Your task to perform on an android device: Go to Maps Image 0: 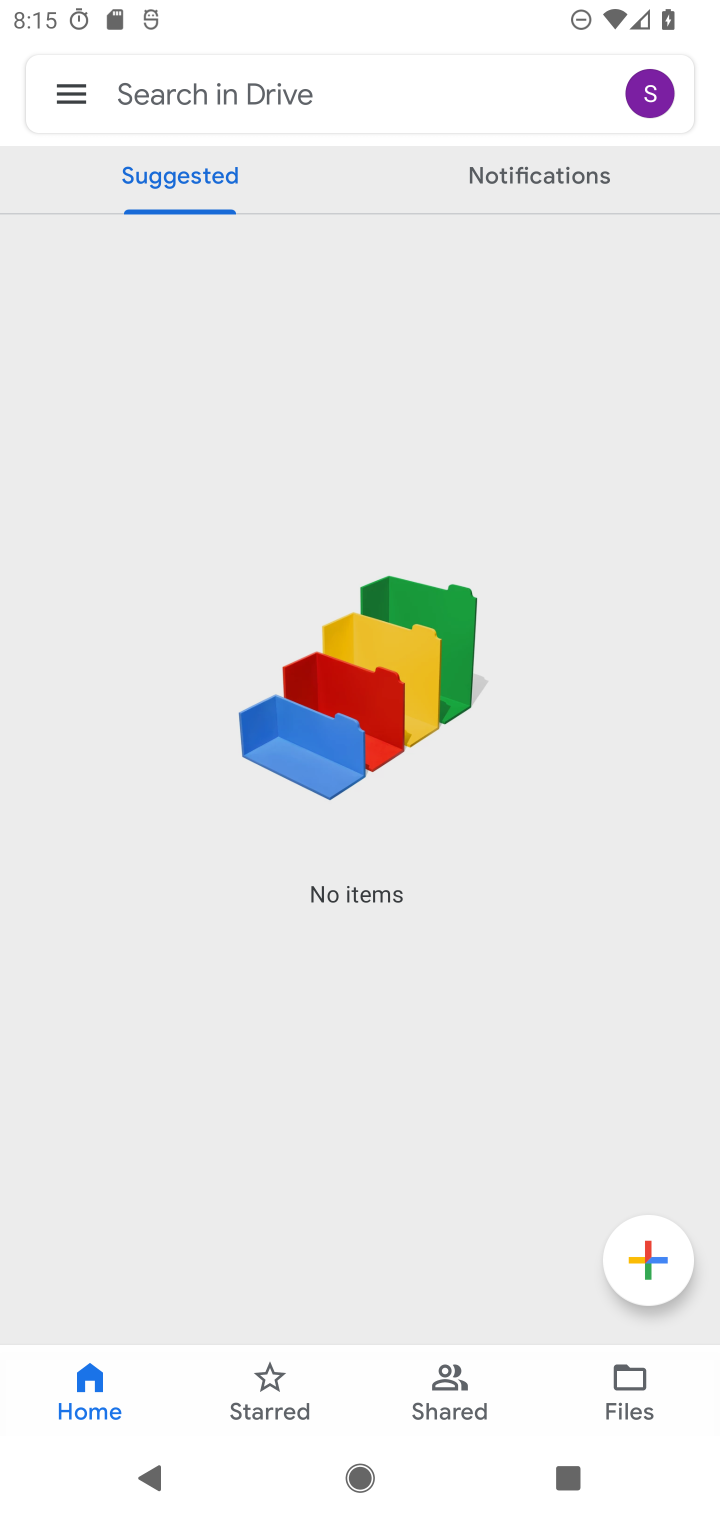
Step 0: press home button
Your task to perform on an android device: Go to Maps Image 1: 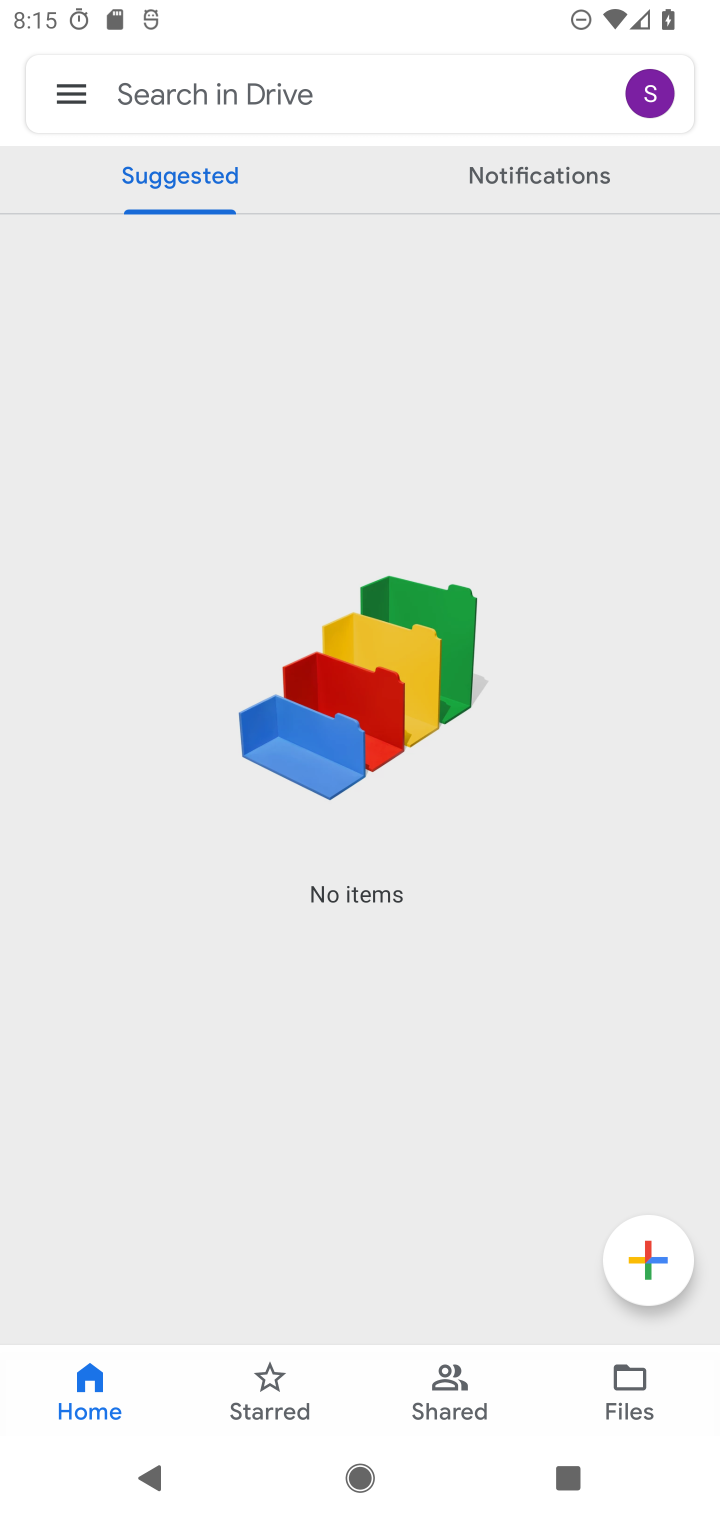
Step 1: press home button
Your task to perform on an android device: Go to Maps Image 2: 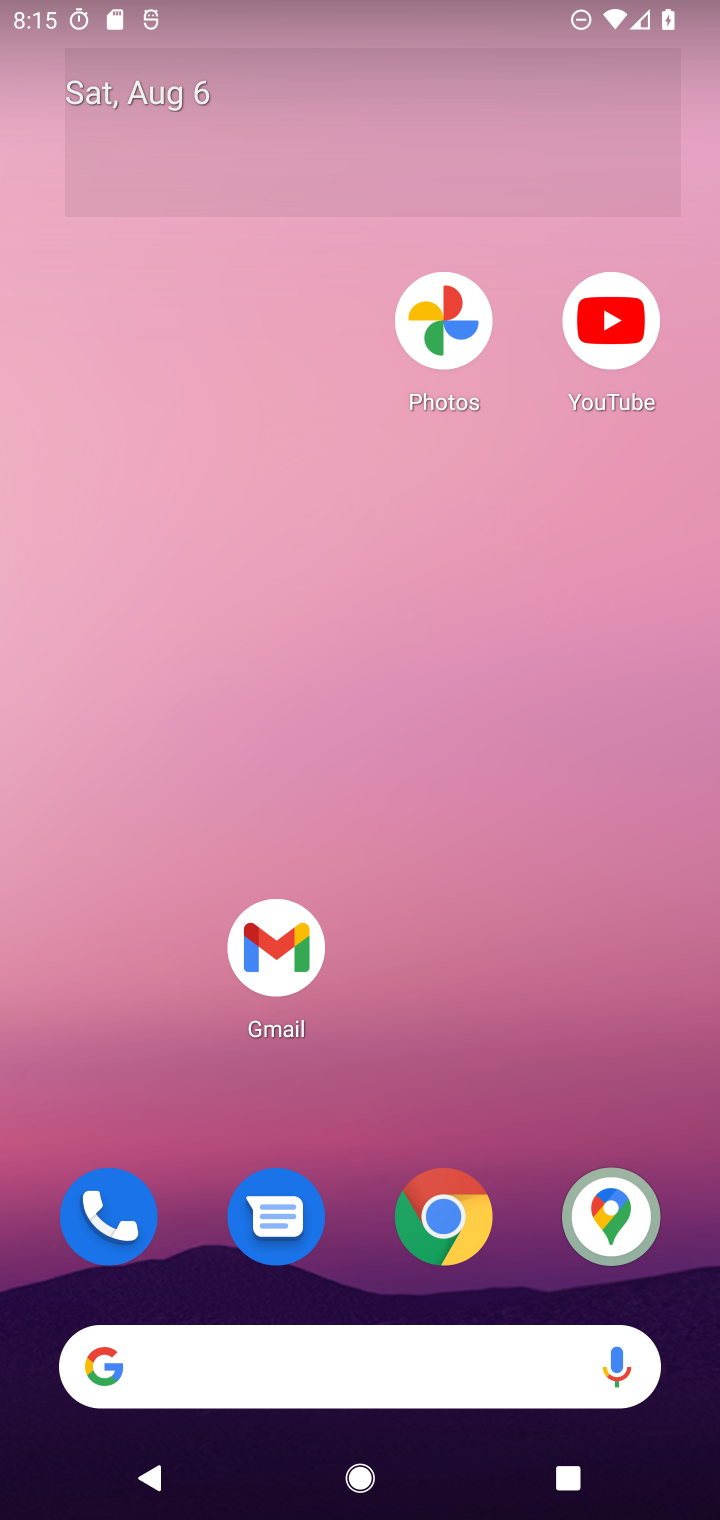
Step 2: drag from (549, 1061) to (465, 3)
Your task to perform on an android device: Go to Maps Image 3: 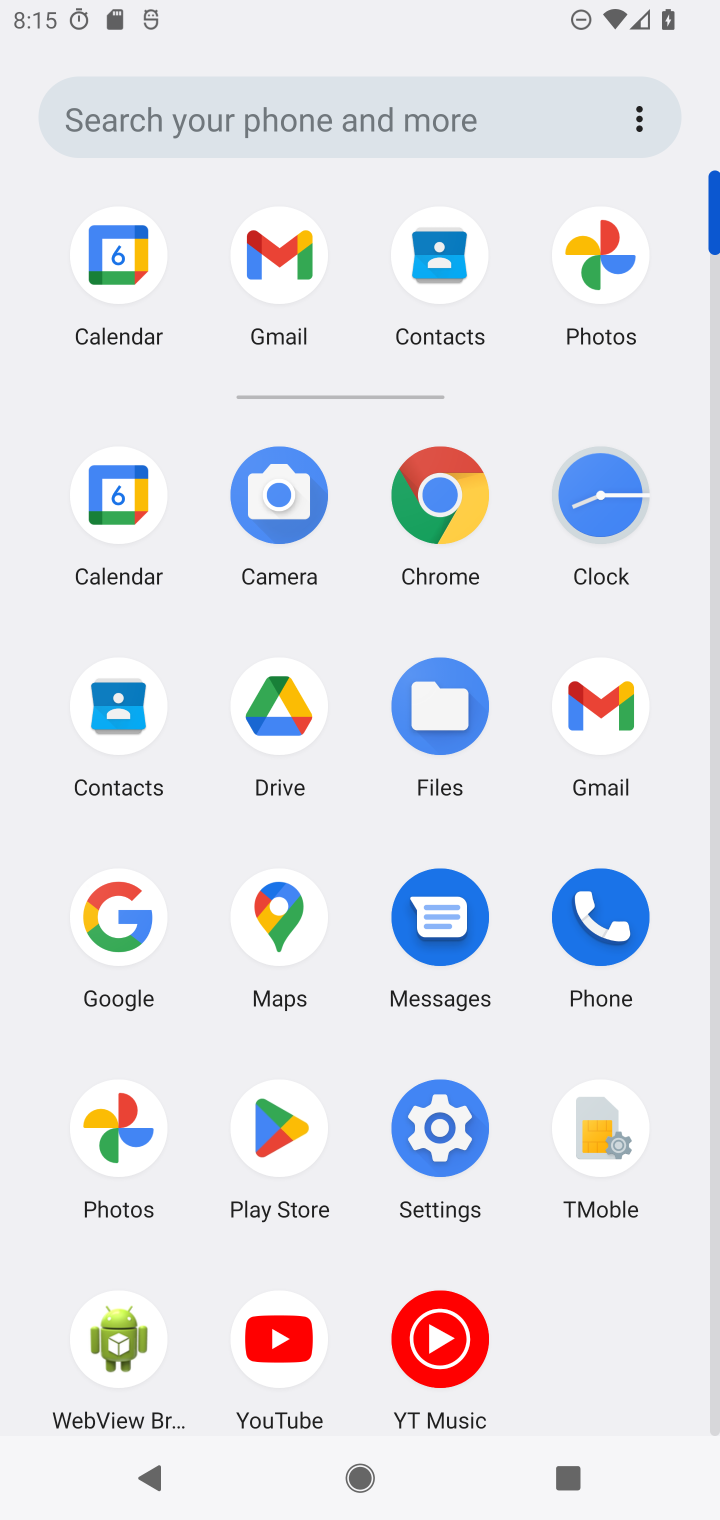
Step 3: click (252, 913)
Your task to perform on an android device: Go to Maps Image 4: 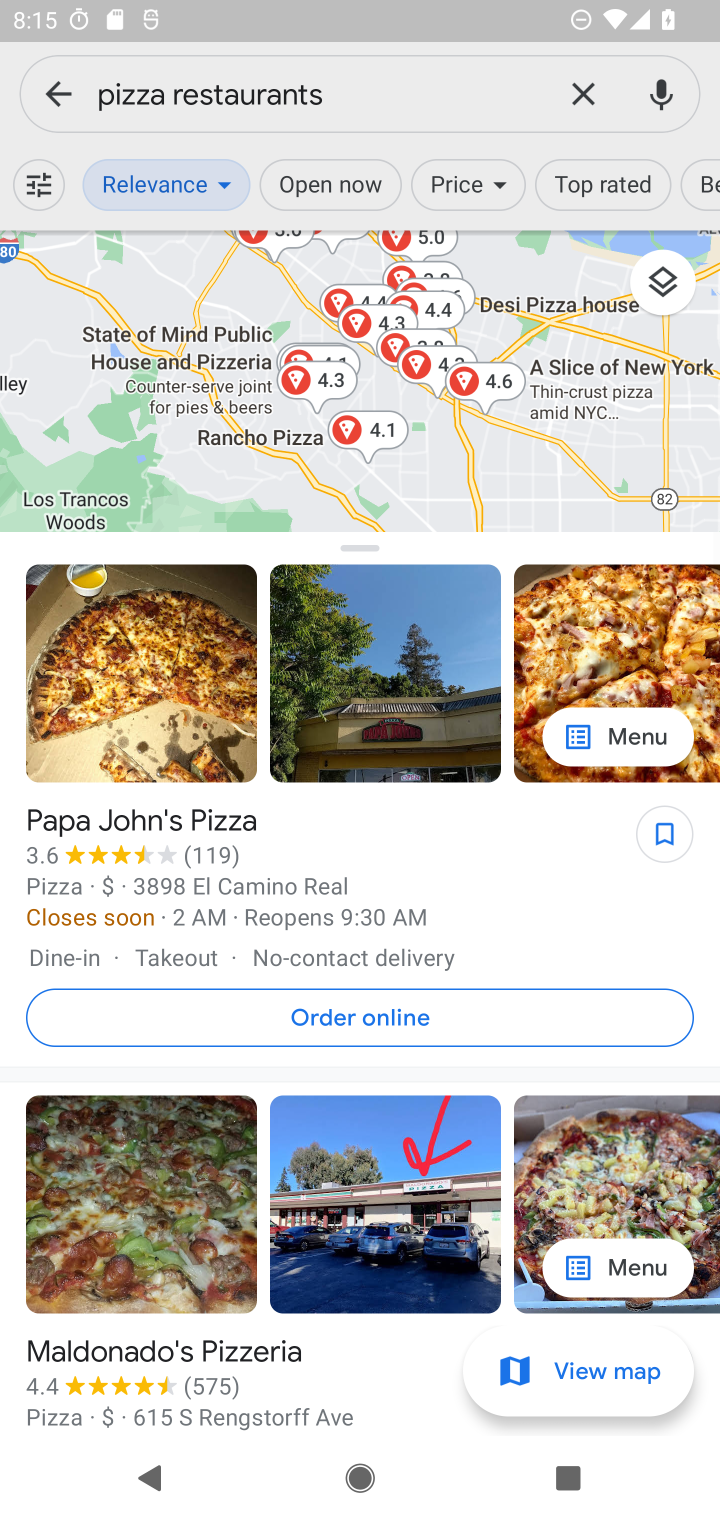
Step 4: task complete